Your task to perform on an android device: turn off airplane mode Image 0: 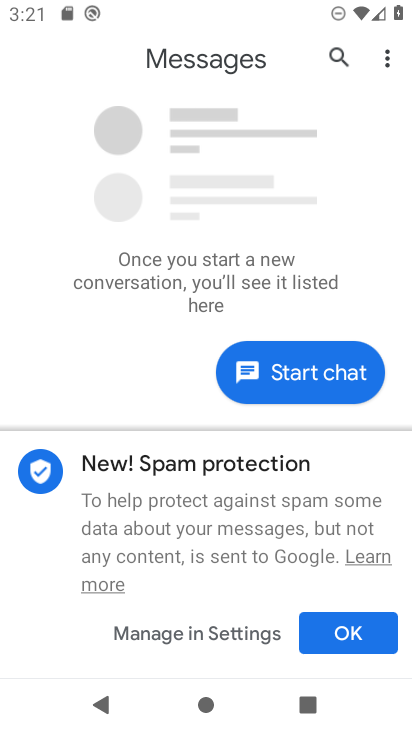
Step 0: press home button
Your task to perform on an android device: turn off airplane mode Image 1: 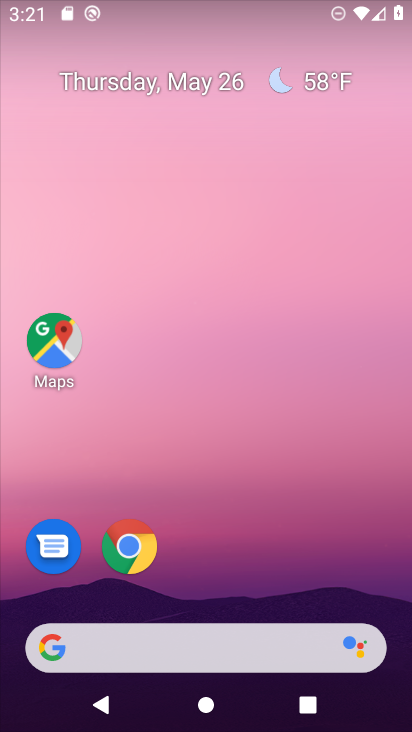
Step 1: drag from (215, 603) to (243, 125)
Your task to perform on an android device: turn off airplane mode Image 2: 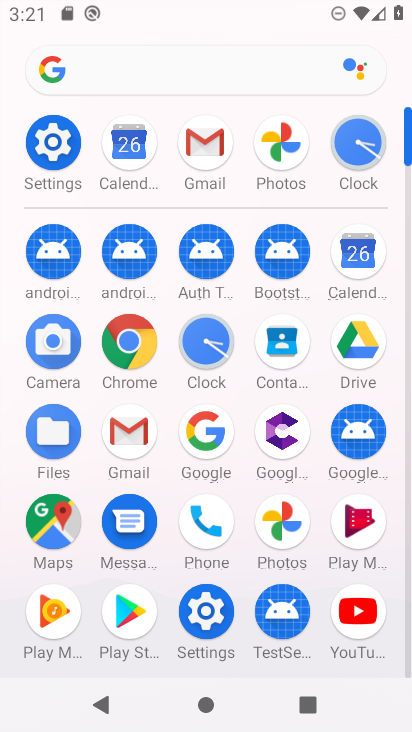
Step 2: click (52, 135)
Your task to perform on an android device: turn off airplane mode Image 3: 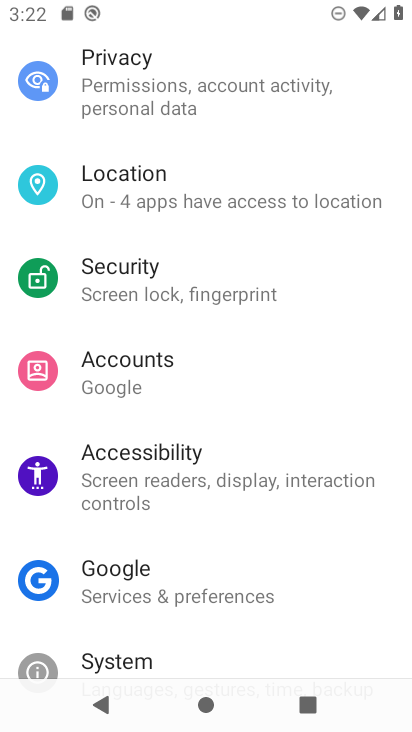
Step 3: task complete